Your task to perform on an android device: Show me the alarms in the clock app Image 0: 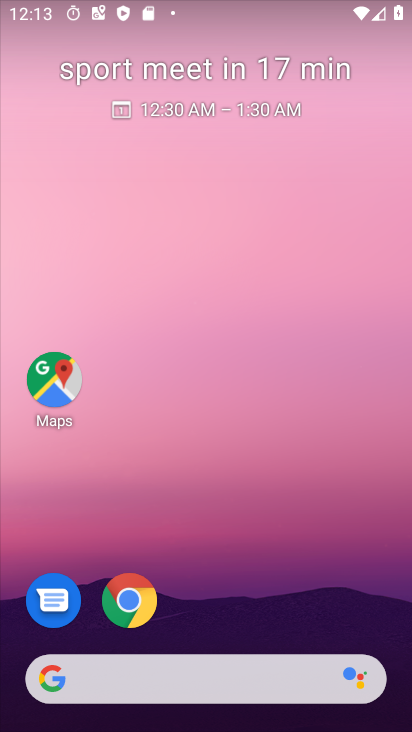
Step 0: drag from (187, 644) to (258, 17)
Your task to perform on an android device: Show me the alarms in the clock app Image 1: 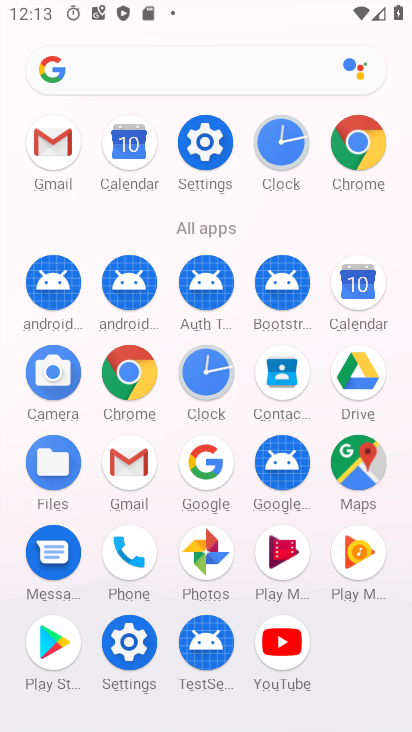
Step 1: click (201, 374)
Your task to perform on an android device: Show me the alarms in the clock app Image 2: 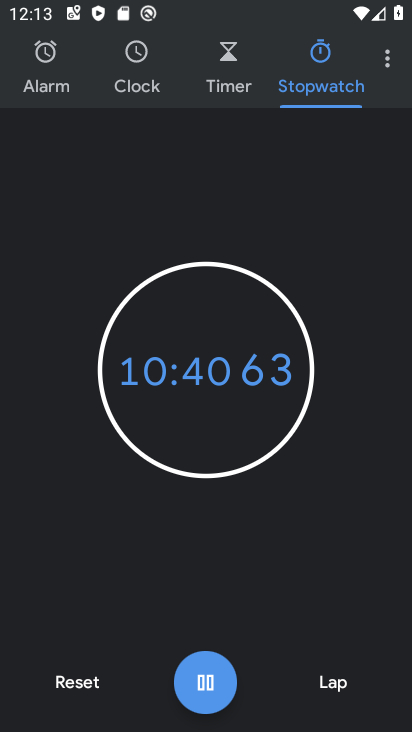
Step 2: click (50, 95)
Your task to perform on an android device: Show me the alarms in the clock app Image 3: 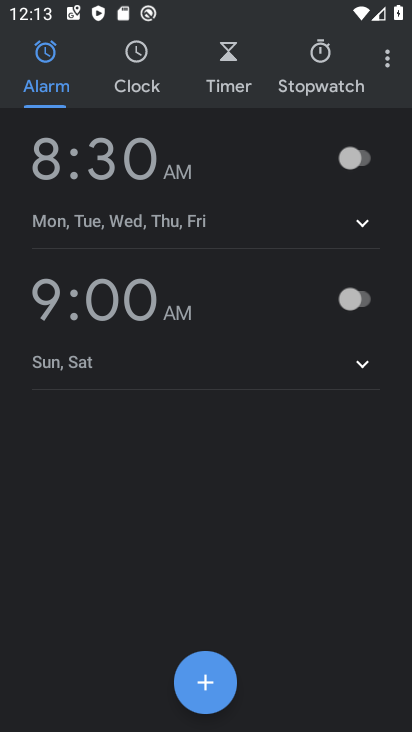
Step 3: task complete